Your task to perform on an android device: Go to Amazon Image 0: 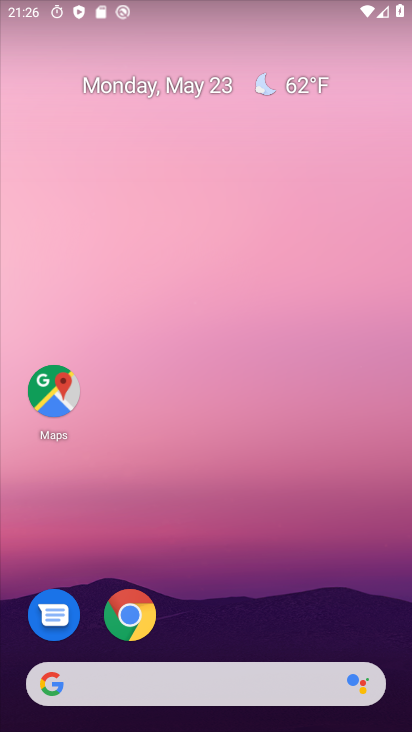
Step 0: click (138, 613)
Your task to perform on an android device: Go to Amazon Image 1: 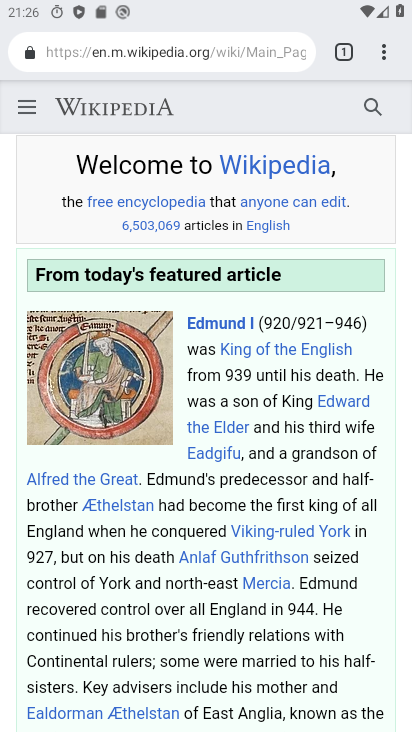
Step 1: press back button
Your task to perform on an android device: Go to Amazon Image 2: 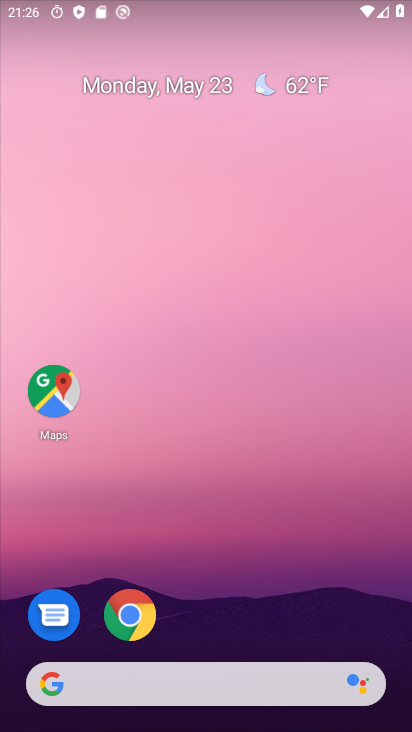
Step 2: click (138, 612)
Your task to perform on an android device: Go to Amazon Image 3: 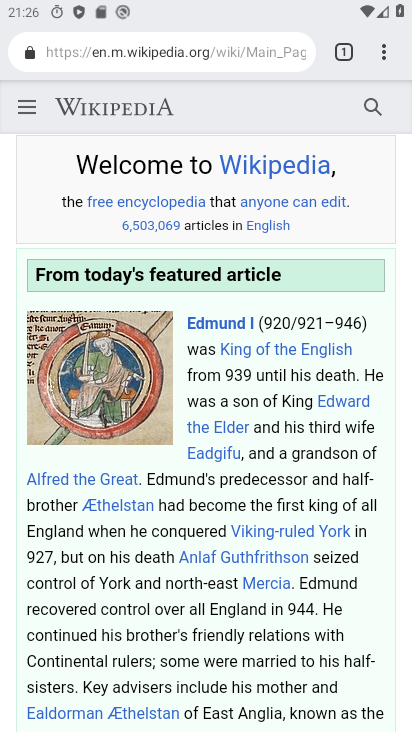
Step 3: click (265, 56)
Your task to perform on an android device: Go to Amazon Image 4: 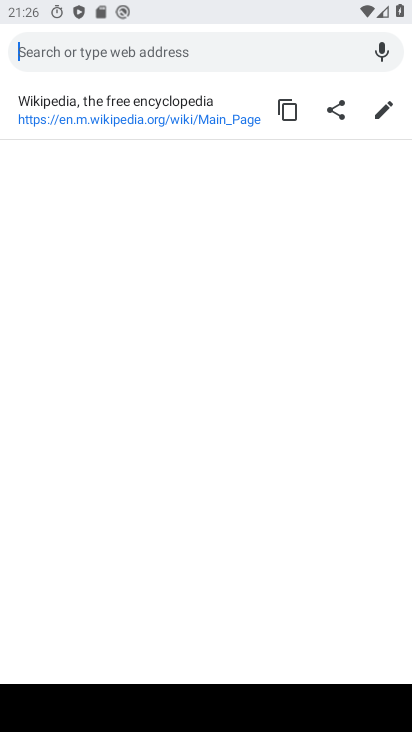
Step 4: type "amazon"
Your task to perform on an android device: Go to Amazon Image 5: 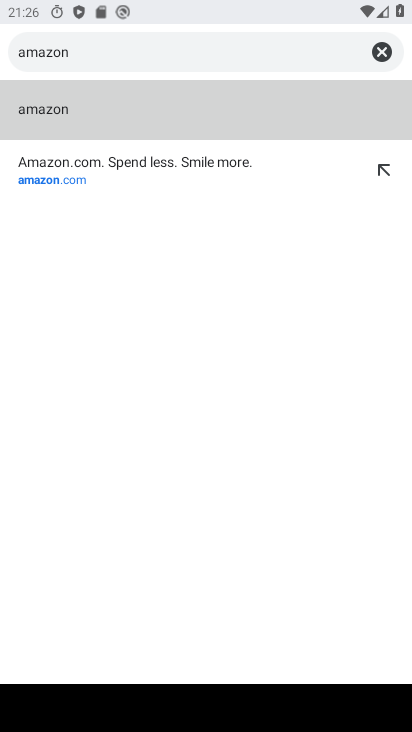
Step 5: click (174, 176)
Your task to perform on an android device: Go to Amazon Image 6: 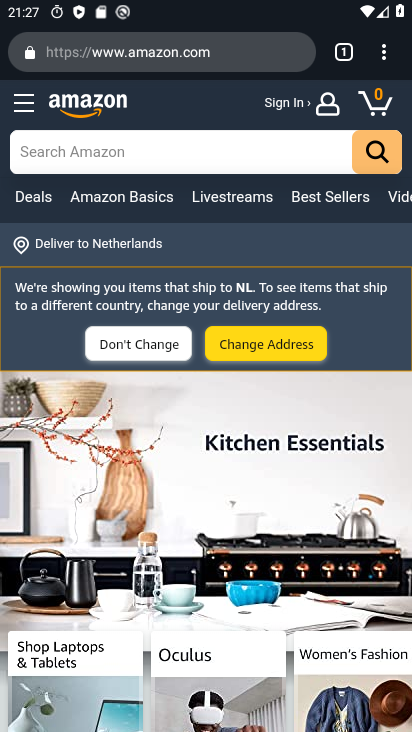
Step 6: task complete